Your task to perform on an android device: Is it going to rain today? Image 0: 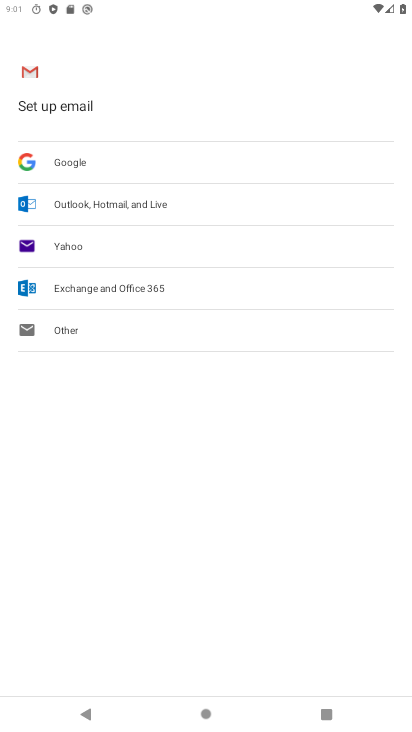
Step 0: press home button
Your task to perform on an android device: Is it going to rain today? Image 1: 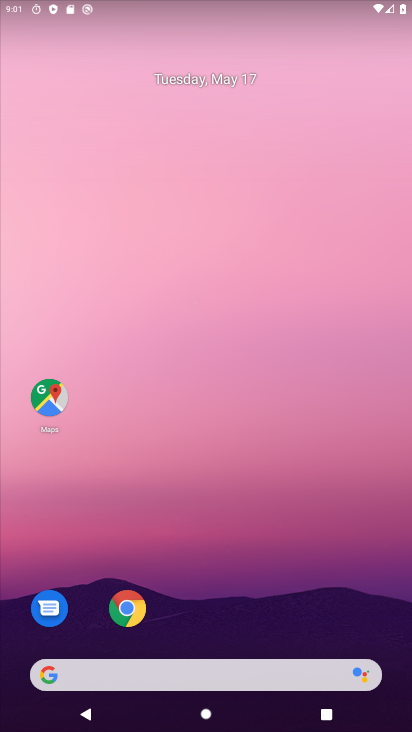
Step 1: drag from (356, 616) to (289, 124)
Your task to perform on an android device: Is it going to rain today? Image 2: 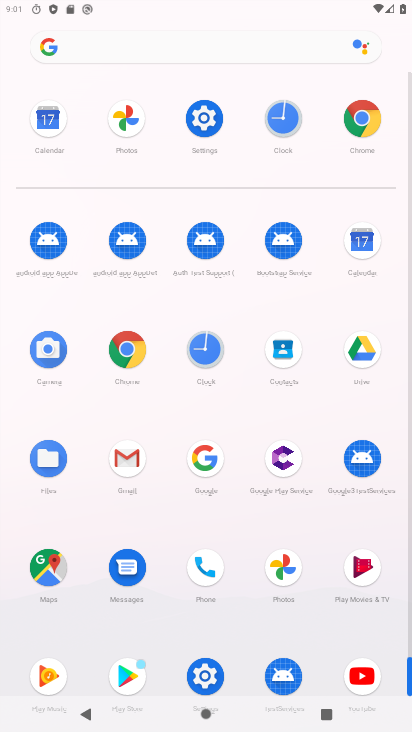
Step 2: click (132, 372)
Your task to perform on an android device: Is it going to rain today? Image 3: 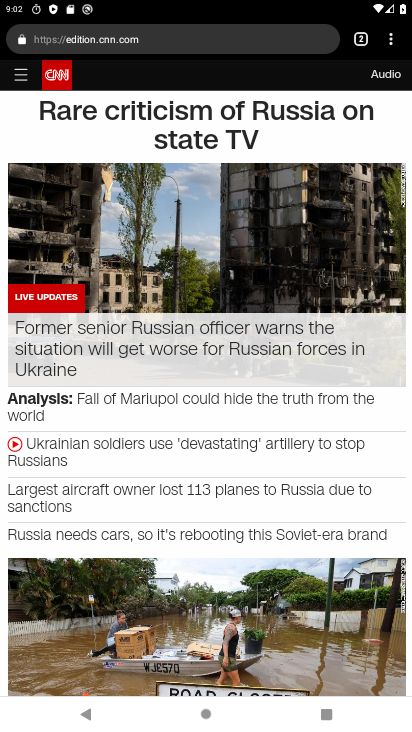
Step 3: click (167, 38)
Your task to perform on an android device: Is it going to rain today? Image 4: 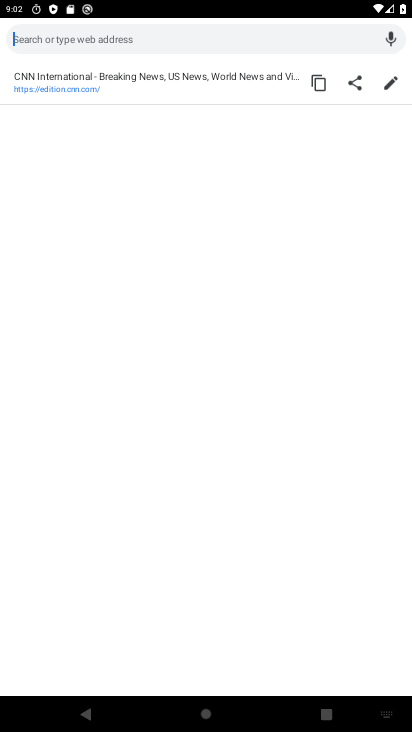
Step 4: type "is it going to rain today"
Your task to perform on an android device: Is it going to rain today? Image 5: 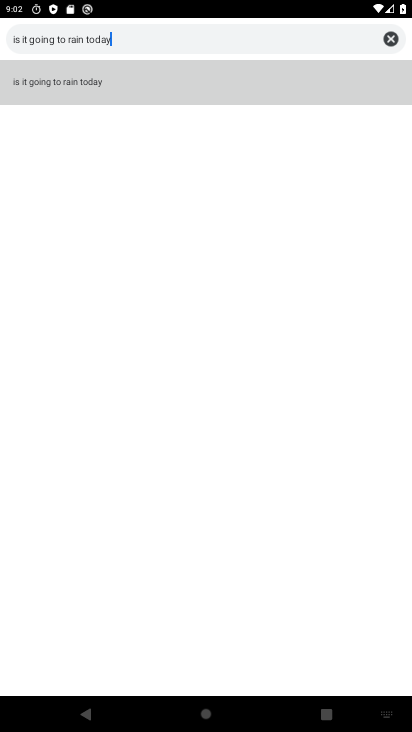
Step 5: click (98, 85)
Your task to perform on an android device: Is it going to rain today? Image 6: 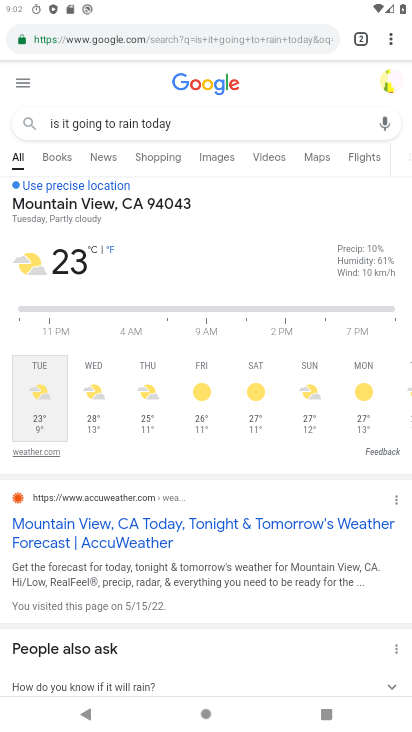
Step 6: task complete